Your task to perform on an android device: Open privacy settings Image 0: 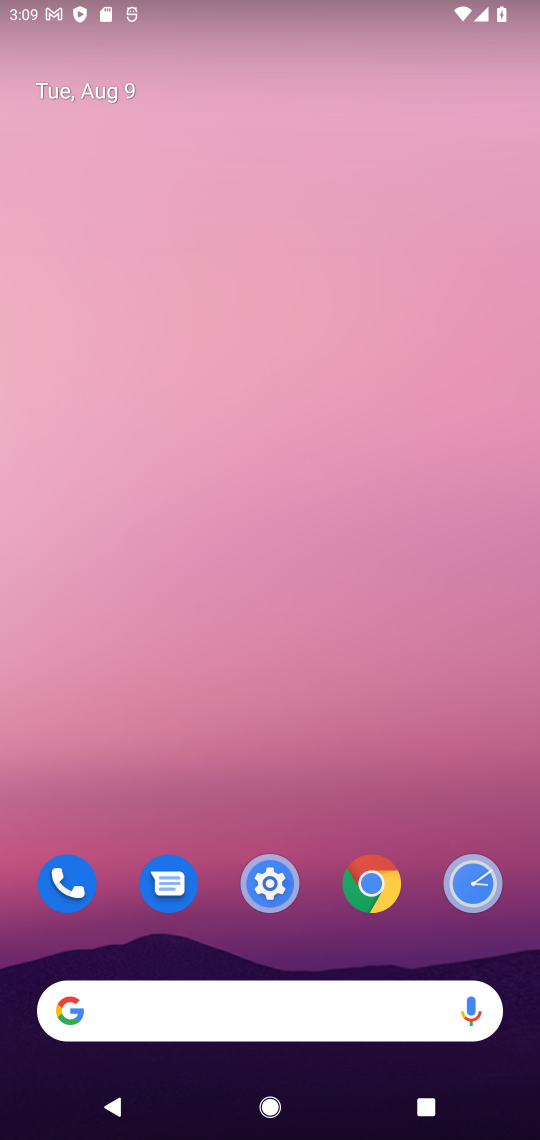
Step 0: drag from (364, 1040) to (303, 420)
Your task to perform on an android device: Open privacy settings Image 1: 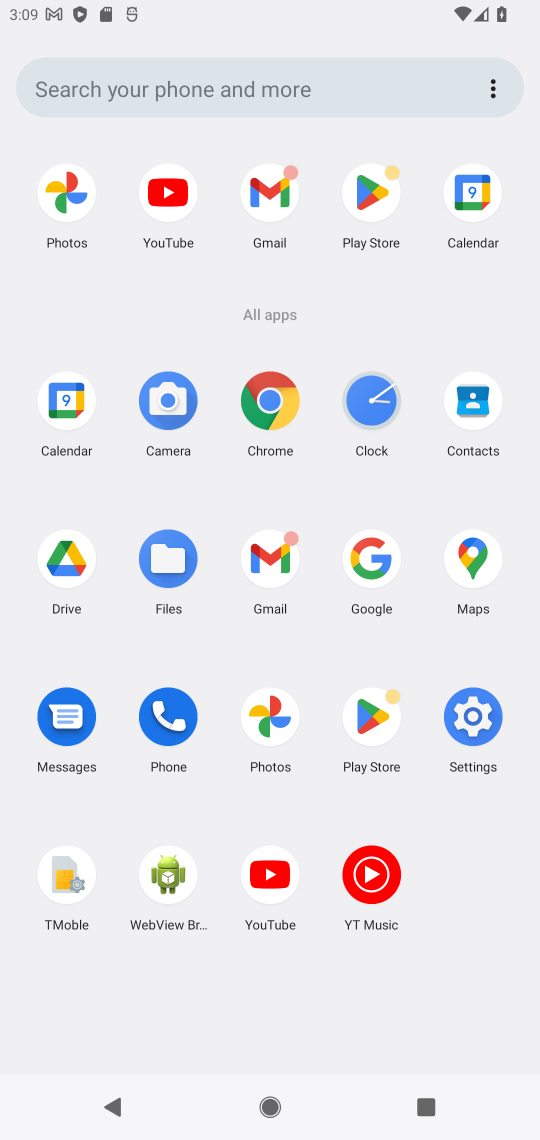
Step 1: click (451, 739)
Your task to perform on an android device: Open privacy settings Image 2: 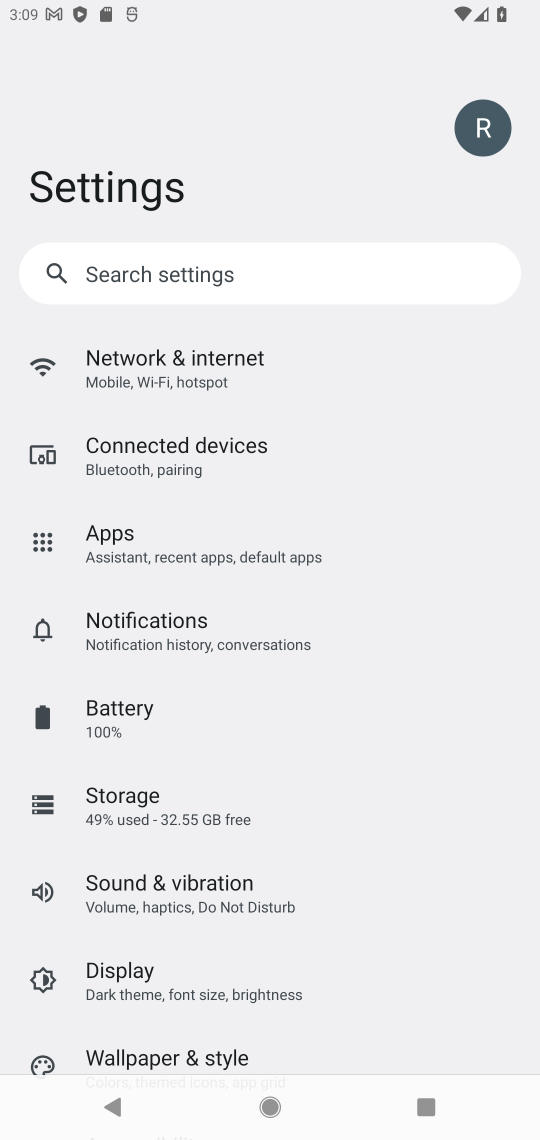
Step 2: click (204, 272)
Your task to perform on an android device: Open privacy settings Image 3: 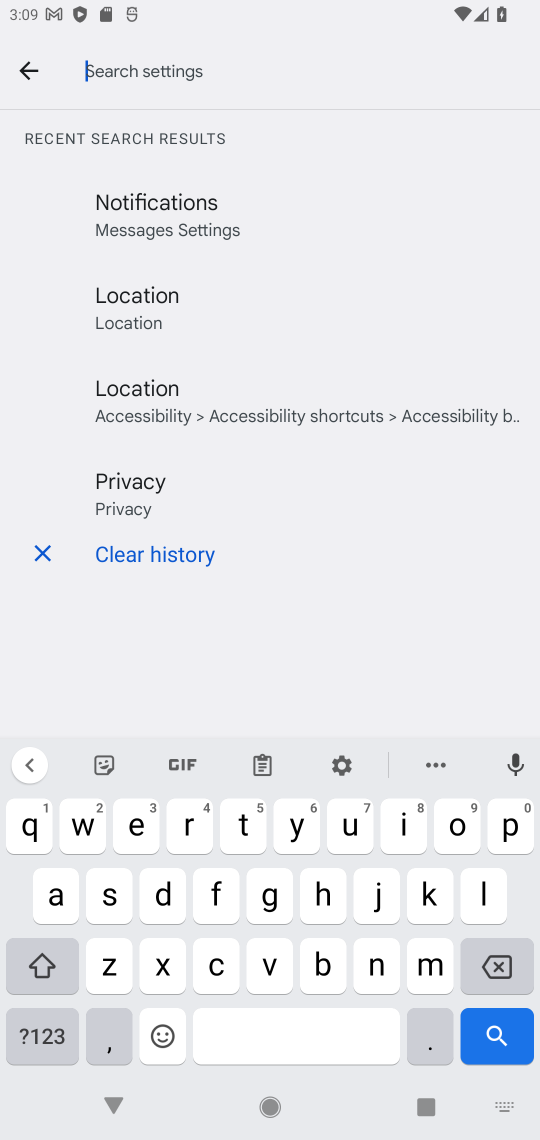
Step 3: click (151, 504)
Your task to perform on an android device: Open privacy settings Image 4: 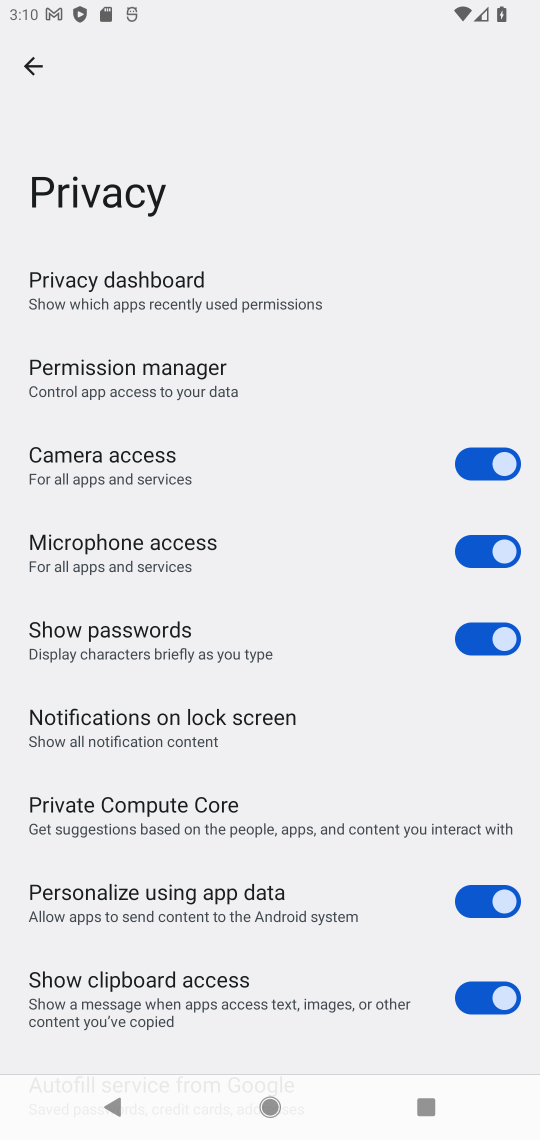
Step 4: task complete